Your task to perform on an android device: change notification settings in the gmail app Image 0: 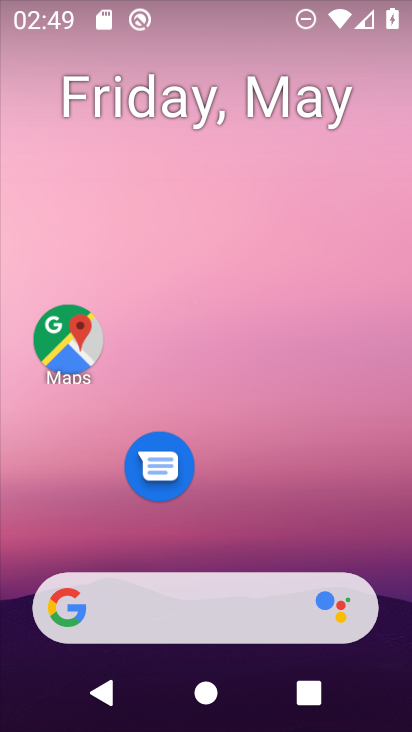
Step 0: drag from (300, 508) to (298, 12)
Your task to perform on an android device: change notification settings in the gmail app Image 1: 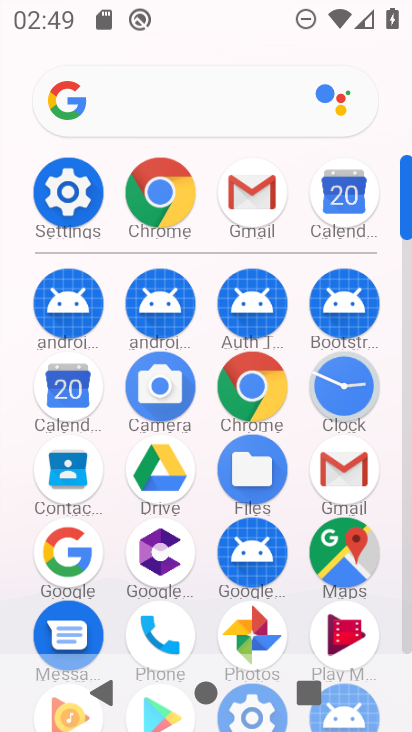
Step 1: click (268, 214)
Your task to perform on an android device: change notification settings in the gmail app Image 2: 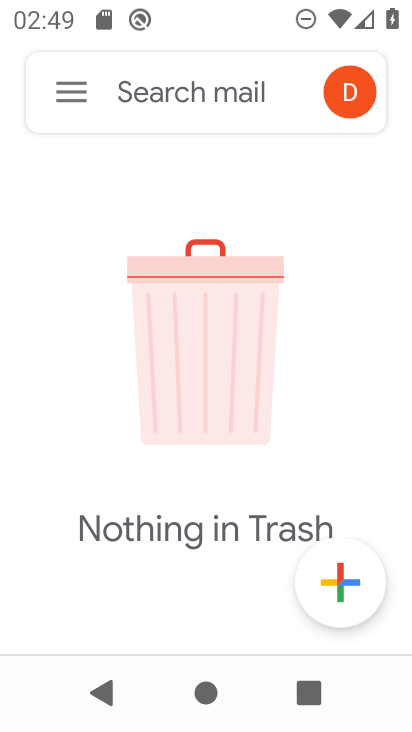
Step 2: click (43, 114)
Your task to perform on an android device: change notification settings in the gmail app Image 3: 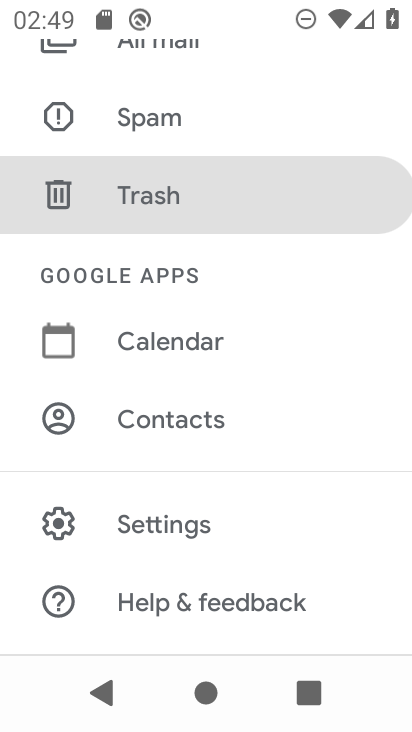
Step 3: click (113, 510)
Your task to perform on an android device: change notification settings in the gmail app Image 4: 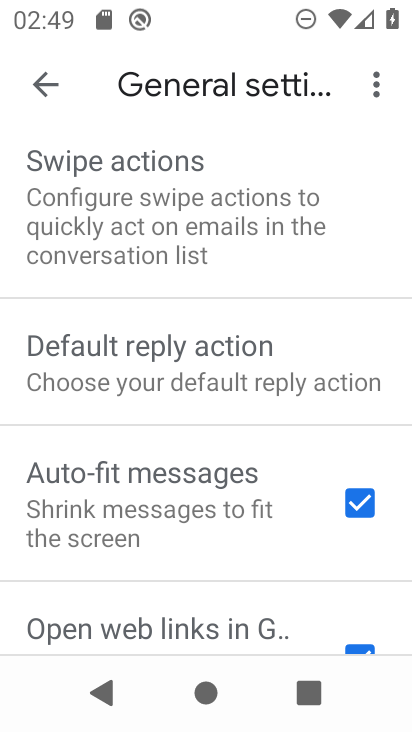
Step 4: click (64, 72)
Your task to perform on an android device: change notification settings in the gmail app Image 5: 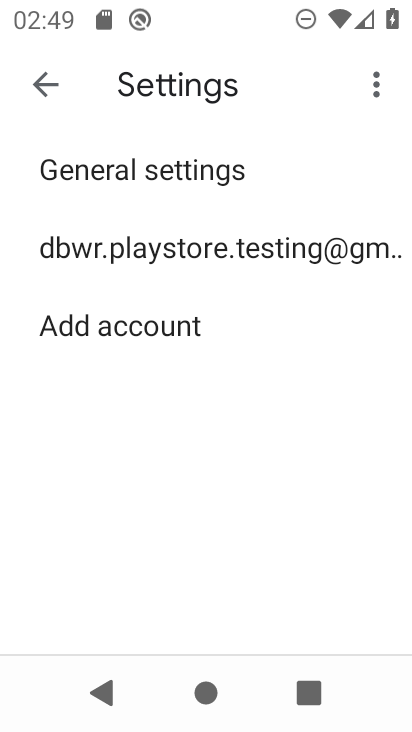
Step 5: click (132, 166)
Your task to perform on an android device: change notification settings in the gmail app Image 6: 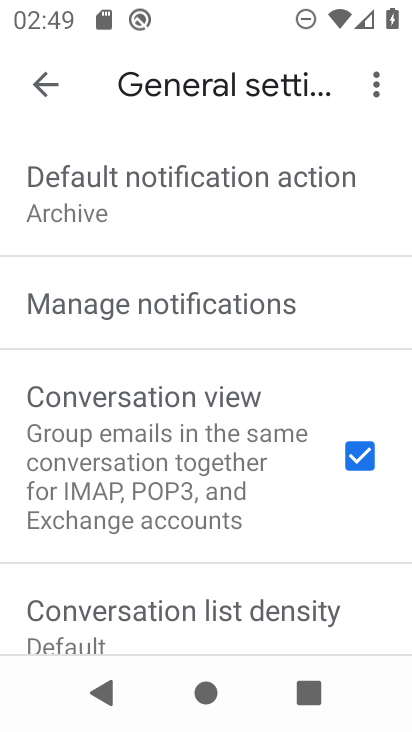
Step 6: click (96, 329)
Your task to perform on an android device: change notification settings in the gmail app Image 7: 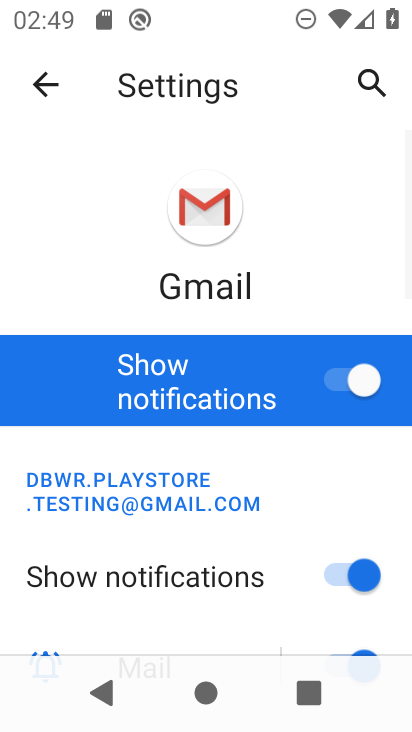
Step 7: click (344, 407)
Your task to perform on an android device: change notification settings in the gmail app Image 8: 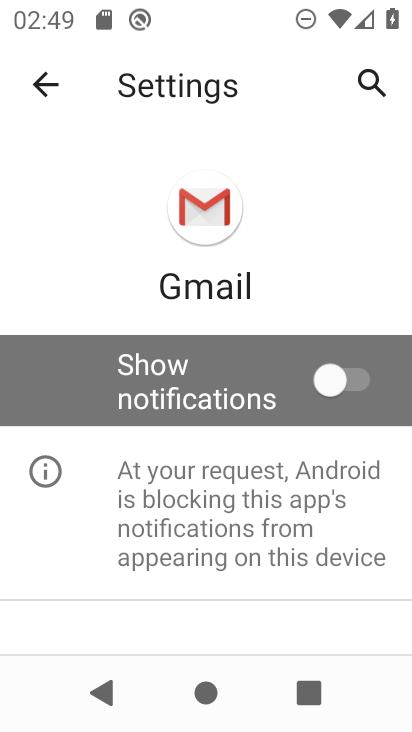
Step 8: task complete